Your task to perform on an android device: Set the phone to "Do not disturb". Image 0: 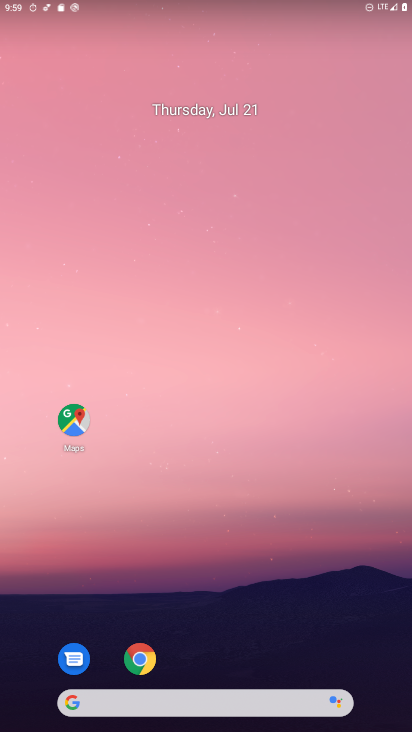
Step 0: drag from (185, 0) to (256, 572)
Your task to perform on an android device: Set the phone to "Do not disturb". Image 1: 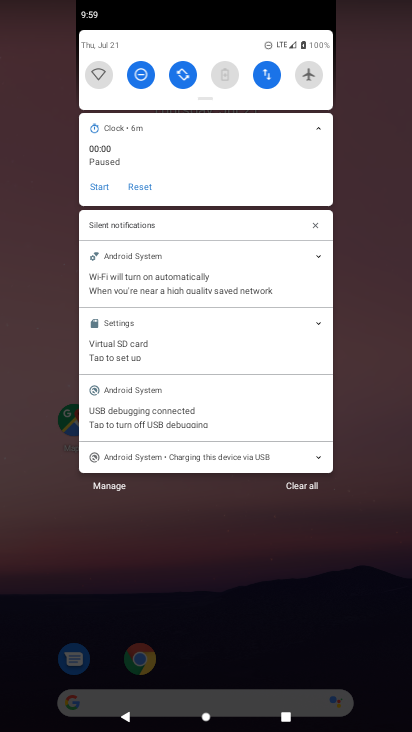
Step 1: task complete